Your task to perform on an android device: Open the web browser Image 0: 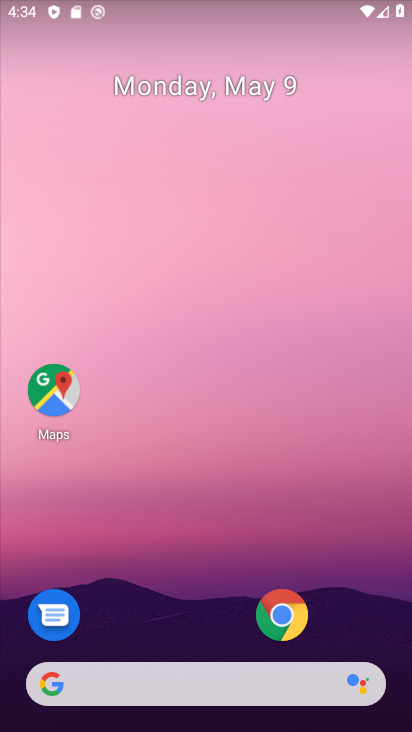
Step 0: click (284, 614)
Your task to perform on an android device: Open the web browser Image 1: 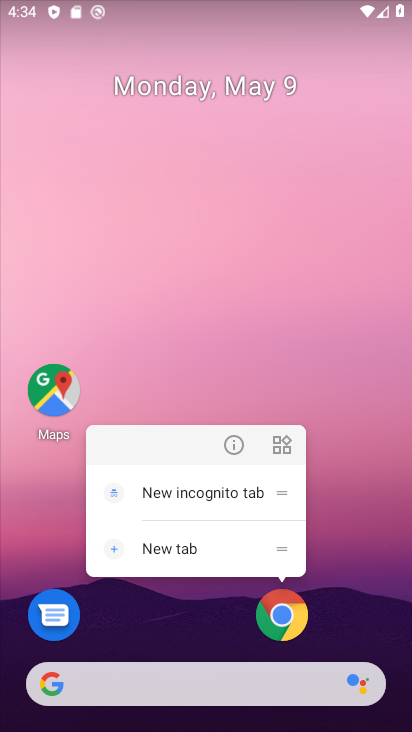
Step 1: click (283, 621)
Your task to perform on an android device: Open the web browser Image 2: 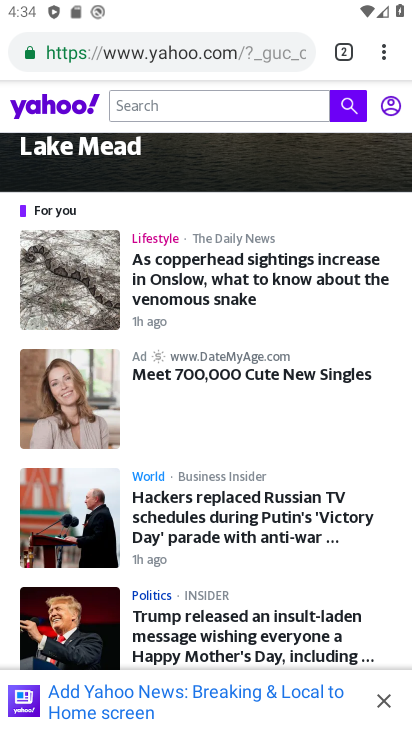
Step 2: task complete